Your task to perform on an android device: Go to location settings Image 0: 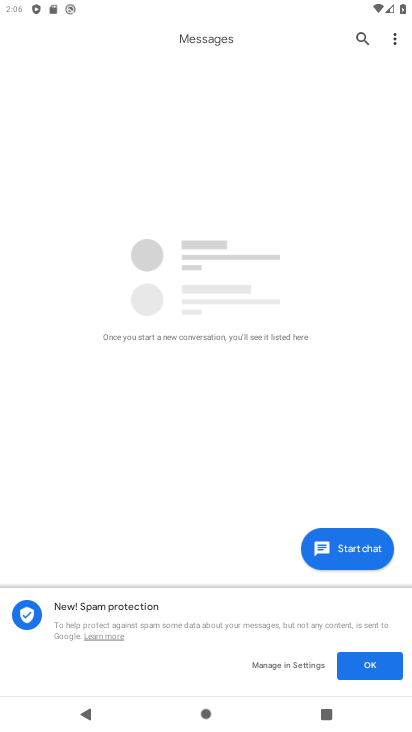
Step 0: press home button
Your task to perform on an android device: Go to location settings Image 1: 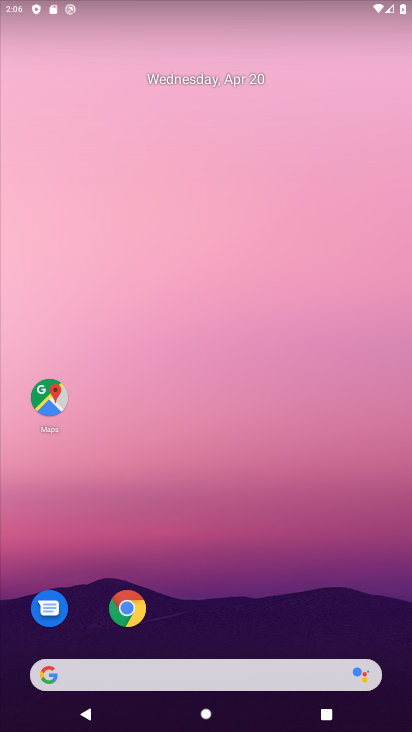
Step 1: drag from (360, 521) to (356, 152)
Your task to perform on an android device: Go to location settings Image 2: 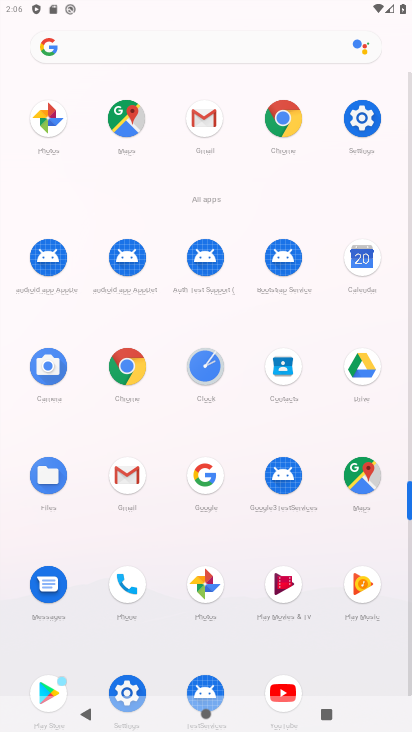
Step 2: click (366, 125)
Your task to perform on an android device: Go to location settings Image 3: 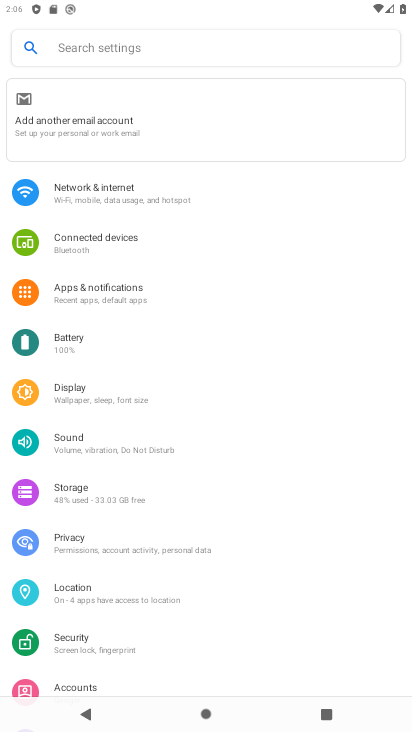
Step 3: drag from (257, 589) to (277, 226)
Your task to perform on an android device: Go to location settings Image 4: 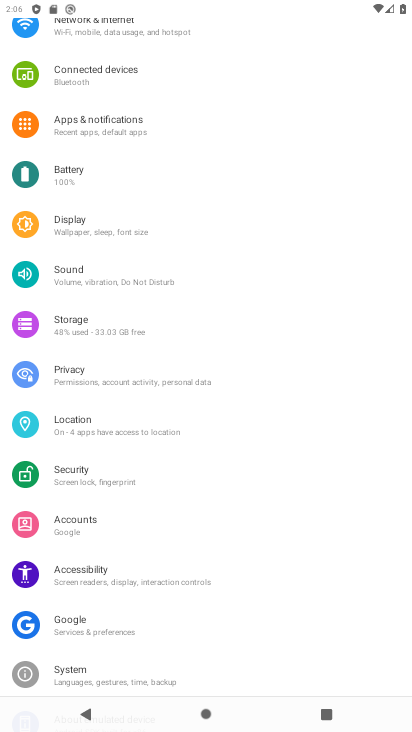
Step 4: drag from (305, 604) to (296, 187)
Your task to perform on an android device: Go to location settings Image 5: 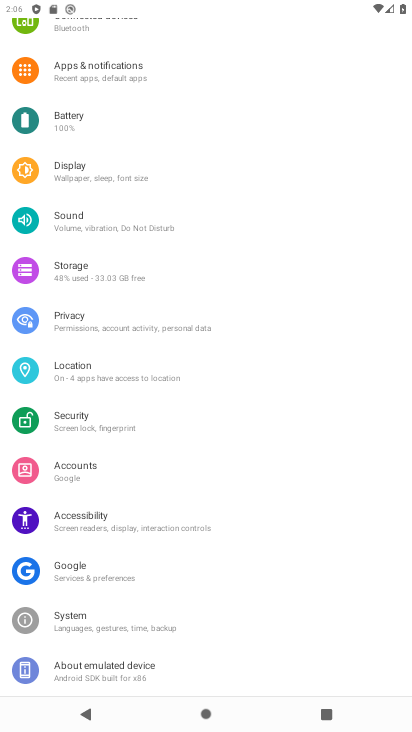
Step 5: drag from (280, 643) to (277, 224)
Your task to perform on an android device: Go to location settings Image 6: 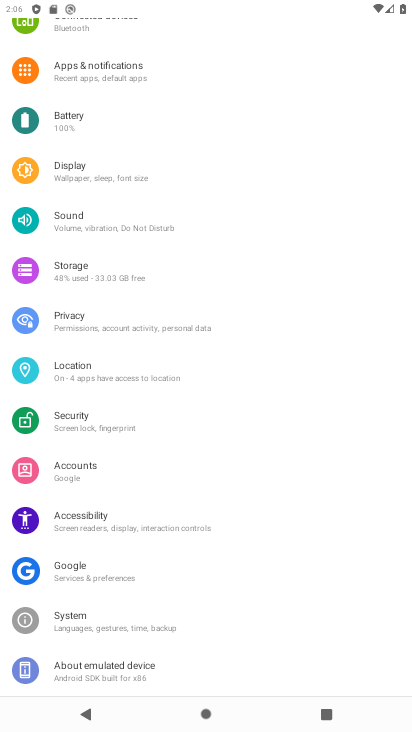
Step 6: click (70, 367)
Your task to perform on an android device: Go to location settings Image 7: 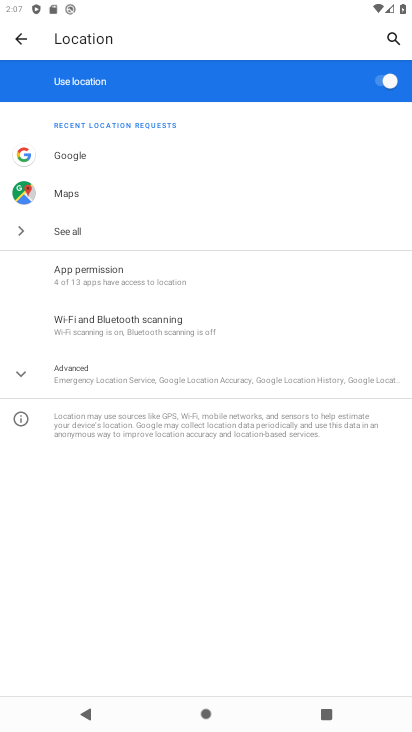
Step 7: click (88, 377)
Your task to perform on an android device: Go to location settings Image 8: 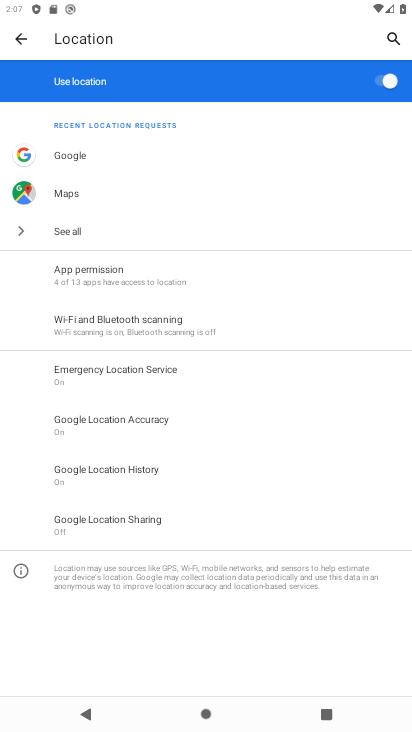
Step 8: task complete